Your task to perform on an android device: Go to ESPN.com Image 0: 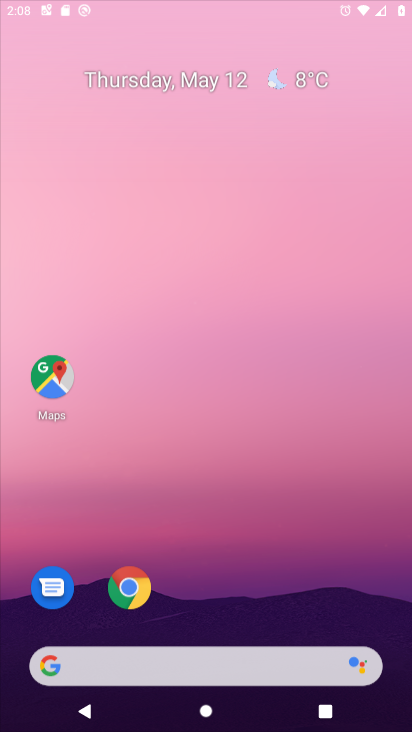
Step 0: click (297, 61)
Your task to perform on an android device: Go to ESPN.com Image 1: 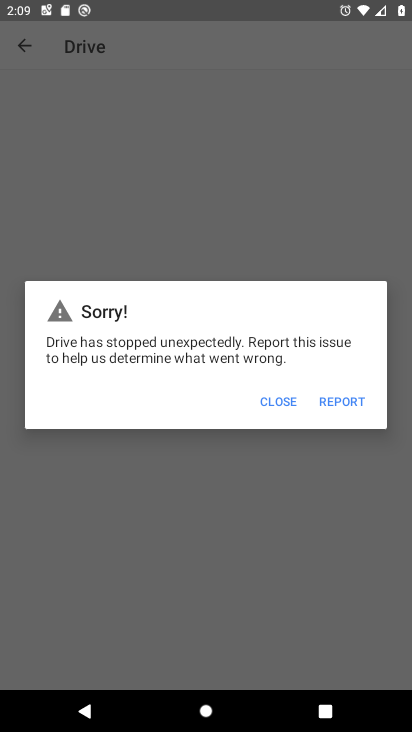
Step 1: drag from (283, 541) to (249, 117)
Your task to perform on an android device: Go to ESPN.com Image 2: 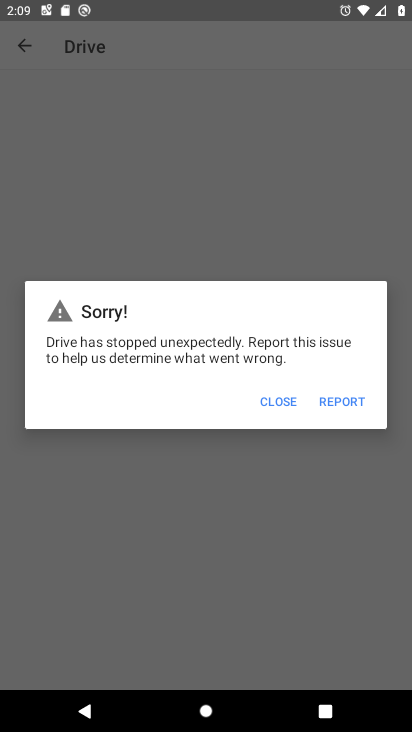
Step 2: press home button
Your task to perform on an android device: Go to ESPN.com Image 3: 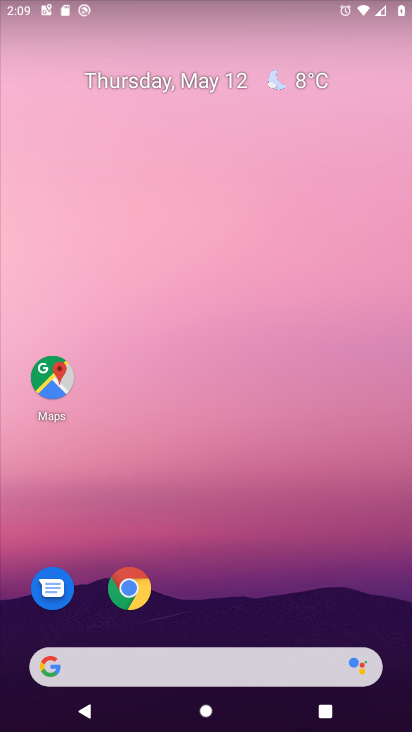
Step 3: drag from (276, 564) to (338, 77)
Your task to perform on an android device: Go to ESPN.com Image 4: 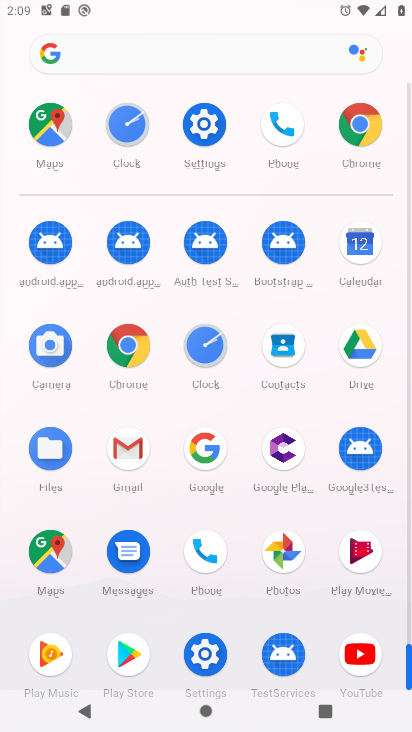
Step 4: click (365, 113)
Your task to perform on an android device: Go to ESPN.com Image 5: 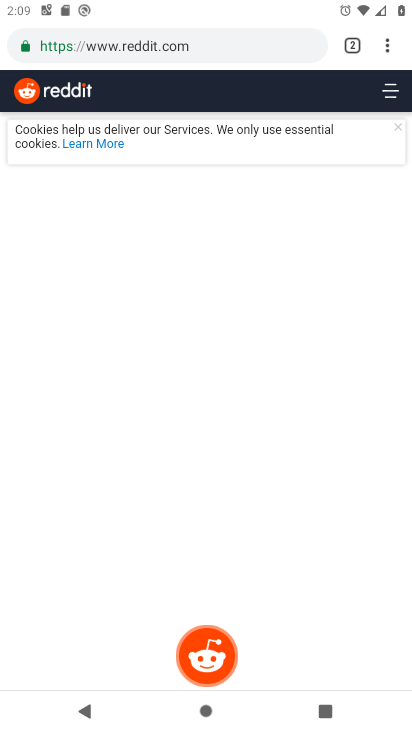
Step 5: click (209, 51)
Your task to perform on an android device: Go to ESPN.com Image 6: 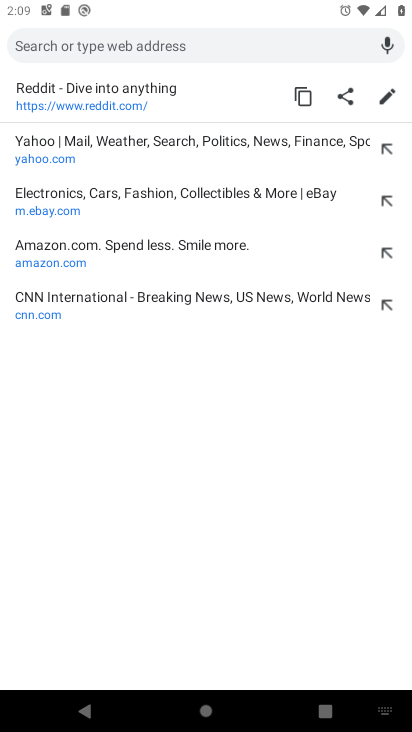
Step 6: type "espn"
Your task to perform on an android device: Go to ESPN.com Image 7: 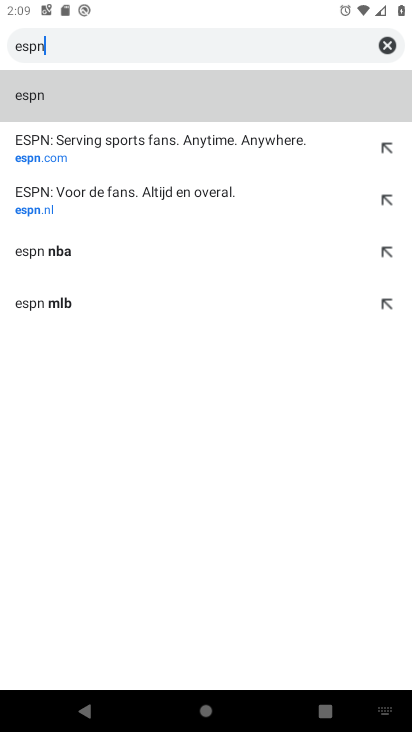
Step 7: click (41, 135)
Your task to perform on an android device: Go to ESPN.com Image 8: 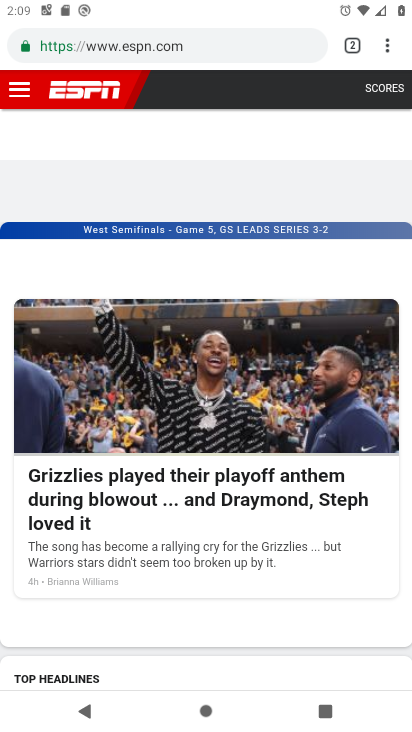
Step 8: task complete